Your task to perform on an android device: Open the stopwatch Image 0: 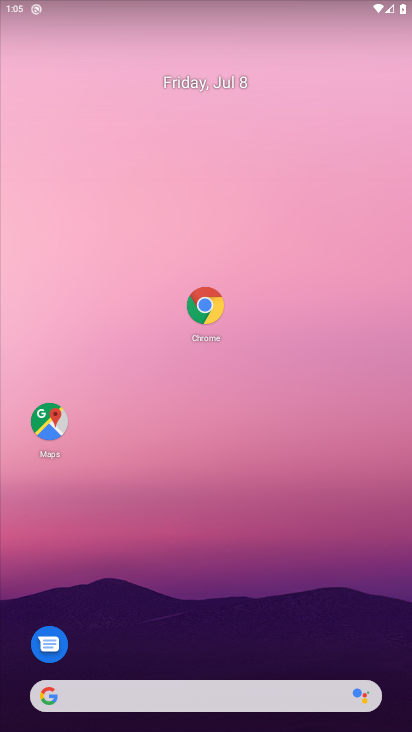
Step 0: drag from (126, 684) to (173, 261)
Your task to perform on an android device: Open the stopwatch Image 1: 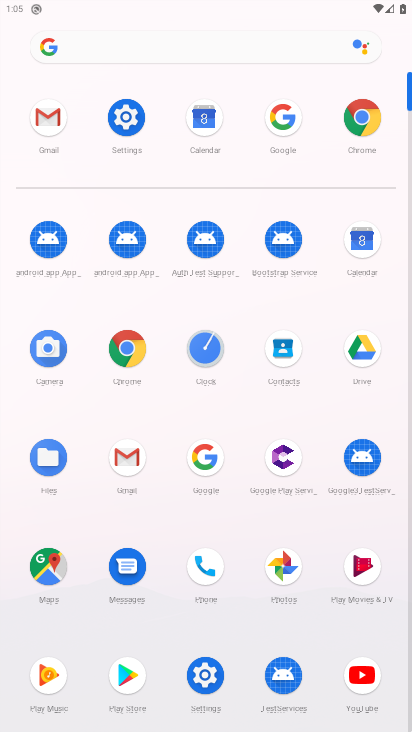
Step 1: click (209, 339)
Your task to perform on an android device: Open the stopwatch Image 2: 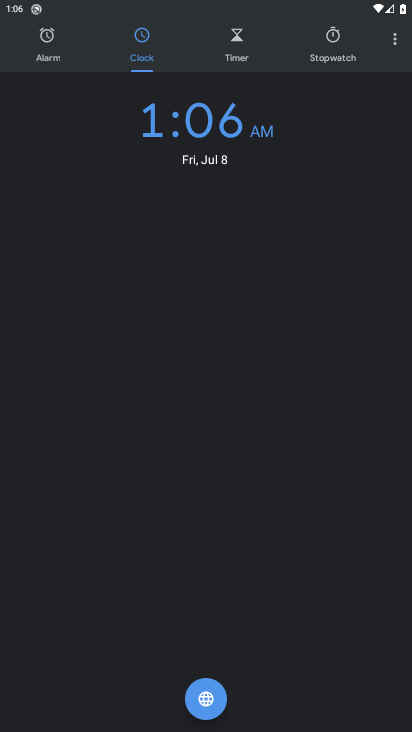
Step 2: click (328, 47)
Your task to perform on an android device: Open the stopwatch Image 3: 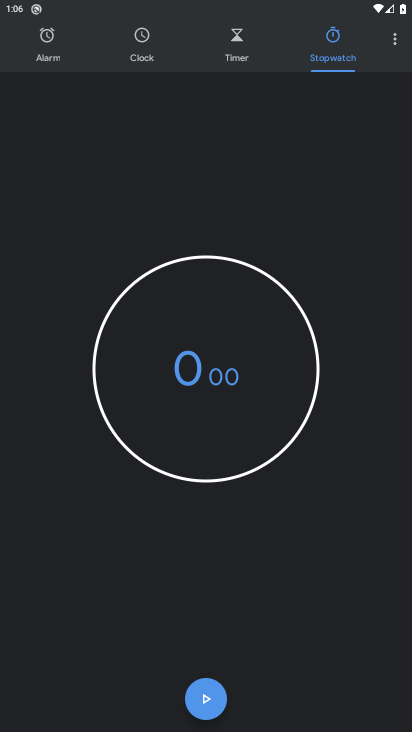
Step 3: task complete